Your task to perform on an android device: open app "Microsoft Excel" Image 0: 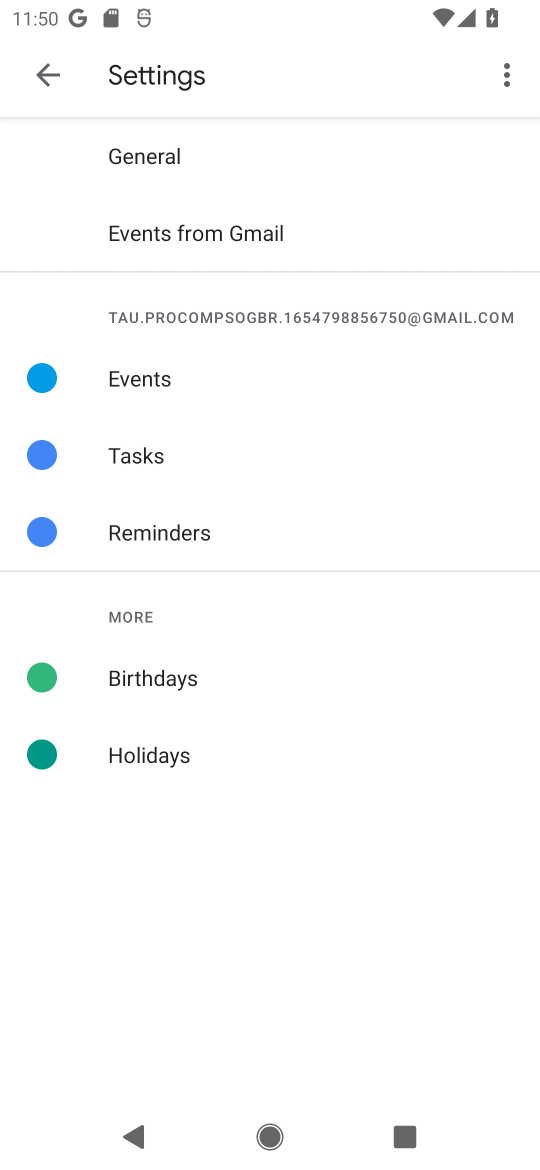
Step 0: press back button
Your task to perform on an android device: open app "Microsoft Excel" Image 1: 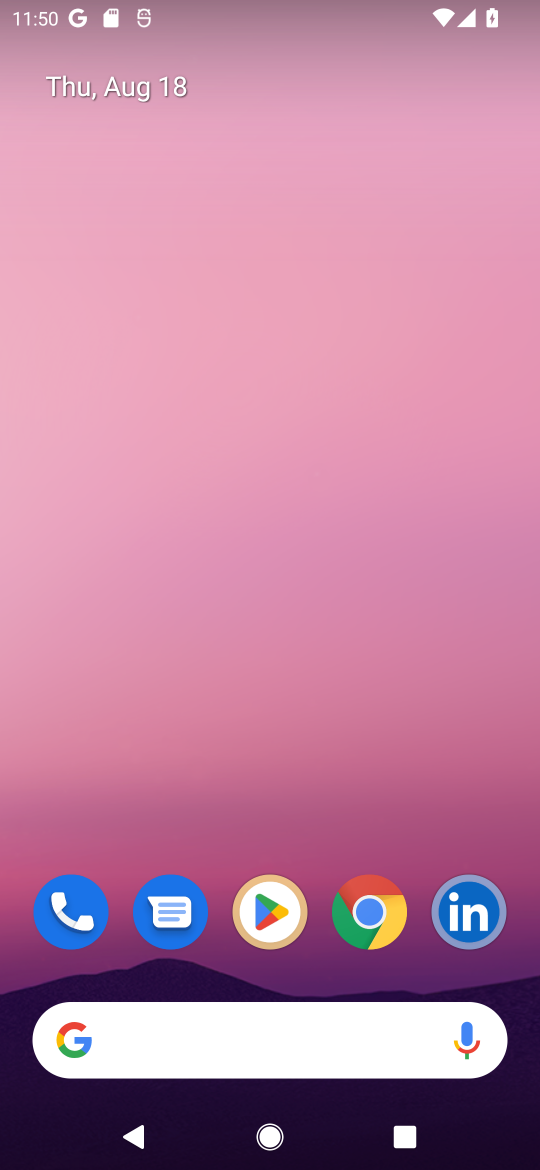
Step 1: click (256, 912)
Your task to perform on an android device: open app "Microsoft Excel" Image 2: 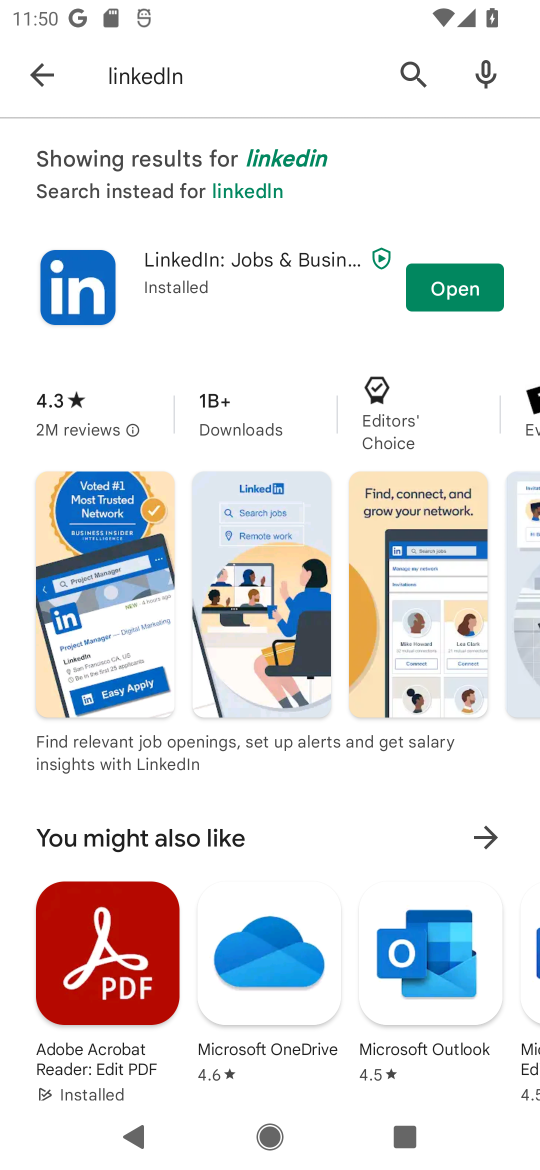
Step 2: click (399, 74)
Your task to perform on an android device: open app "Microsoft Excel" Image 3: 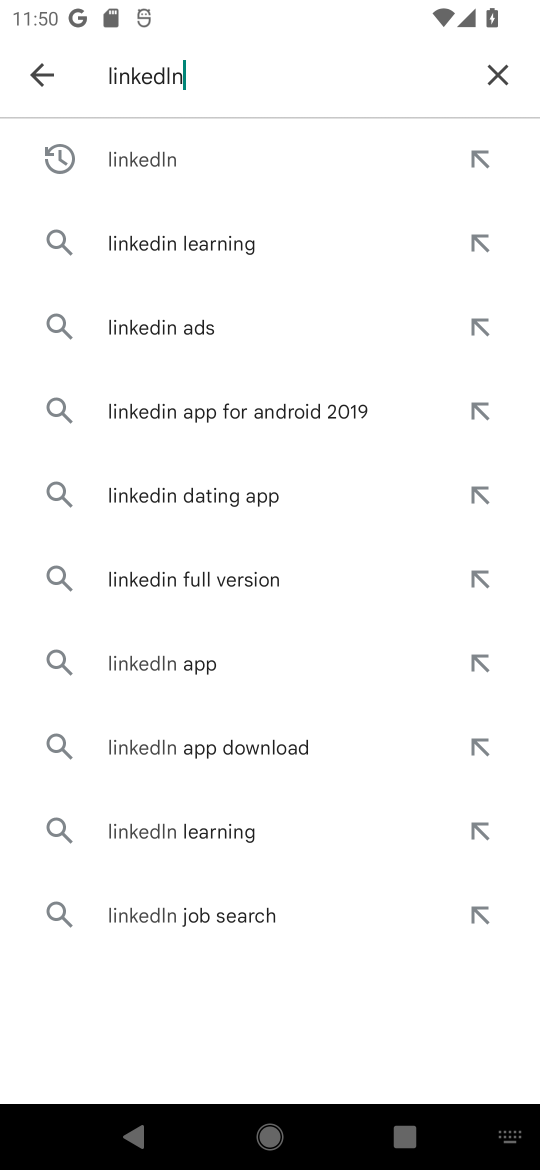
Step 3: click (499, 84)
Your task to perform on an android device: open app "Microsoft Excel" Image 4: 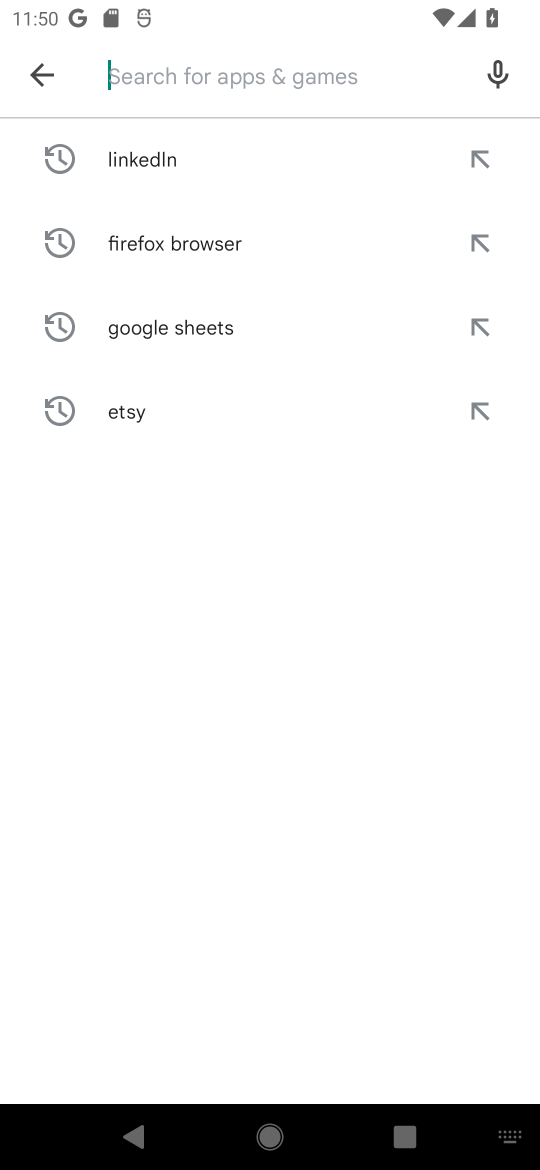
Step 4: click (143, 78)
Your task to perform on an android device: open app "Microsoft Excel" Image 5: 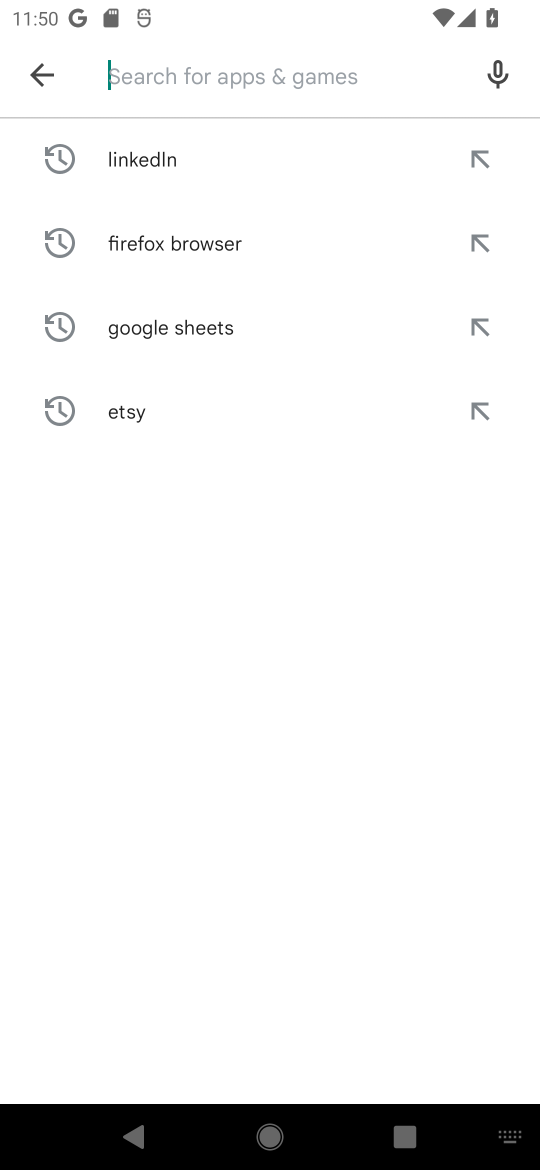
Step 5: type "Microsoft Excel"
Your task to perform on an android device: open app "Microsoft Excel" Image 6: 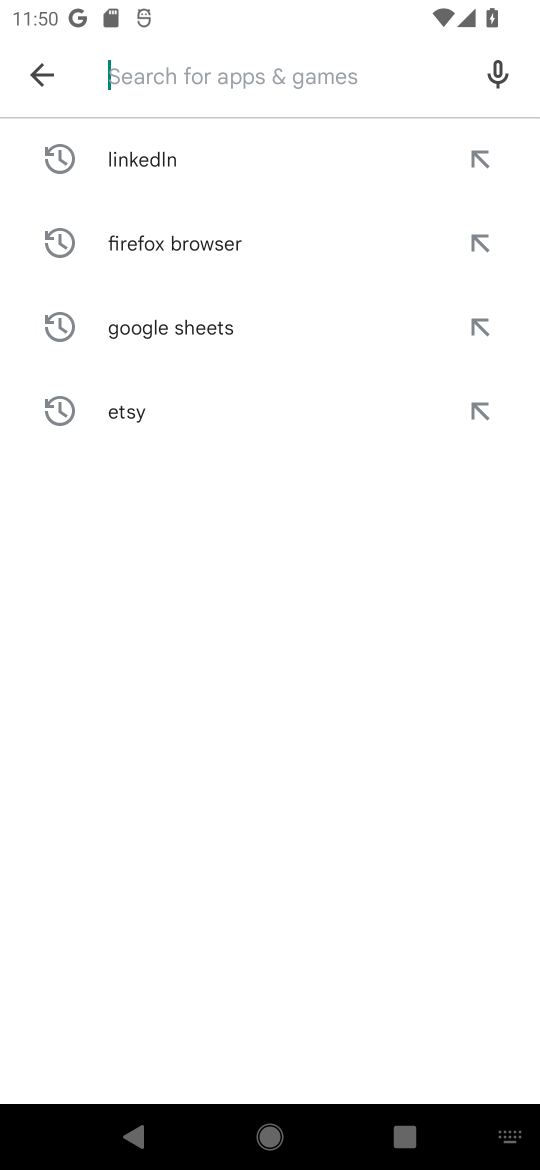
Step 6: click (205, 664)
Your task to perform on an android device: open app "Microsoft Excel" Image 7: 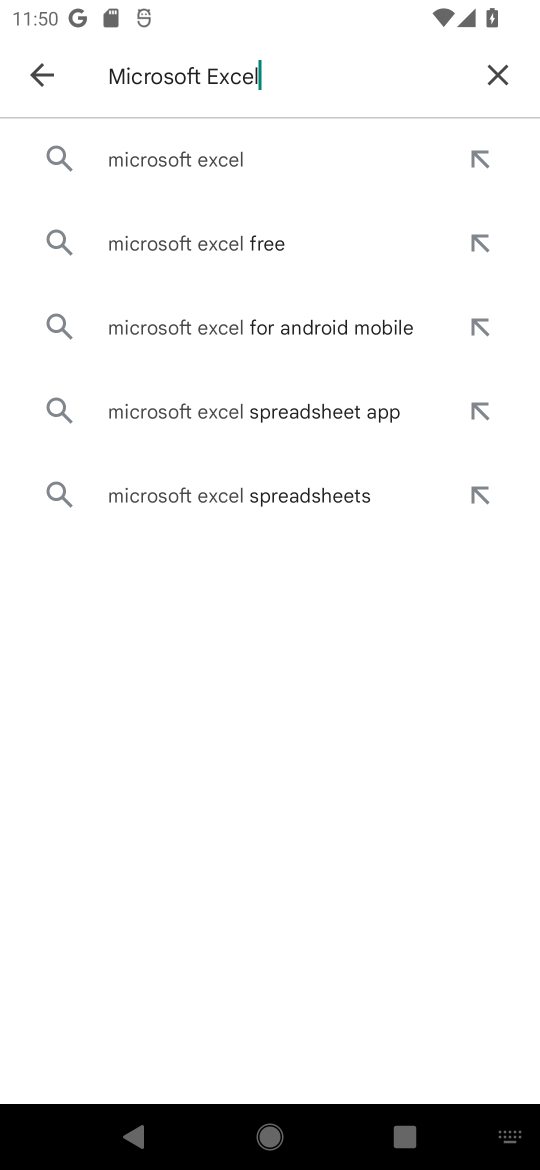
Step 7: click (196, 136)
Your task to perform on an android device: open app "Microsoft Excel" Image 8: 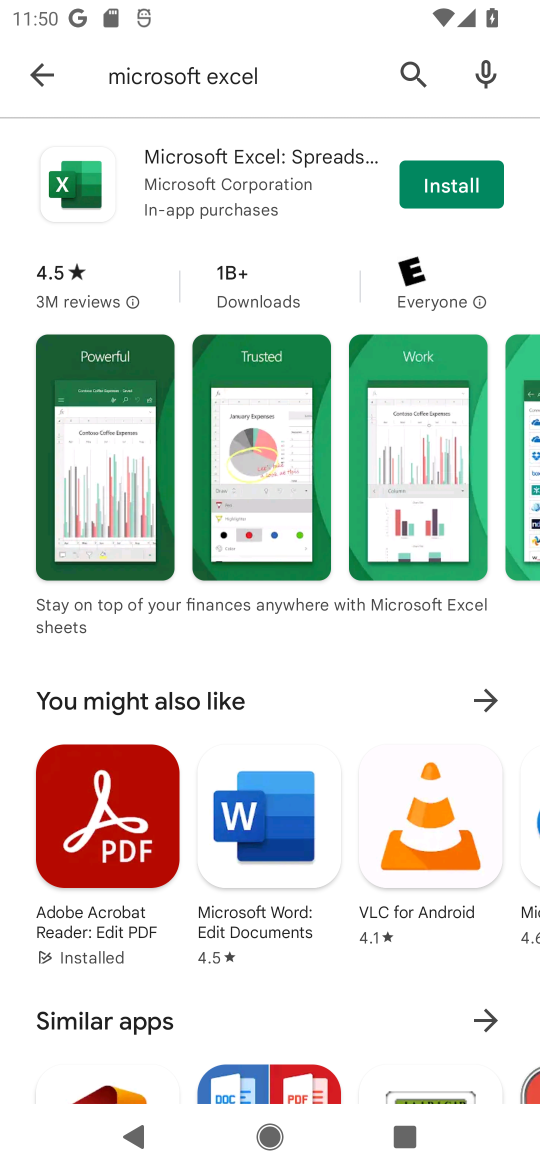
Step 8: task complete